Your task to perform on an android device: check data usage Image 0: 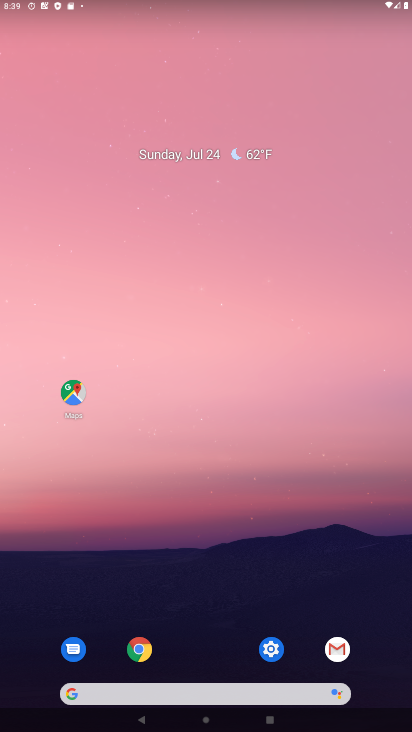
Step 0: click (265, 654)
Your task to perform on an android device: check data usage Image 1: 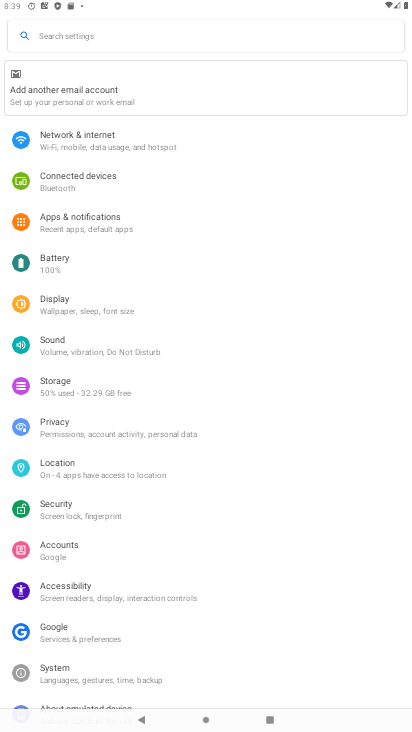
Step 1: click (102, 38)
Your task to perform on an android device: check data usage Image 2: 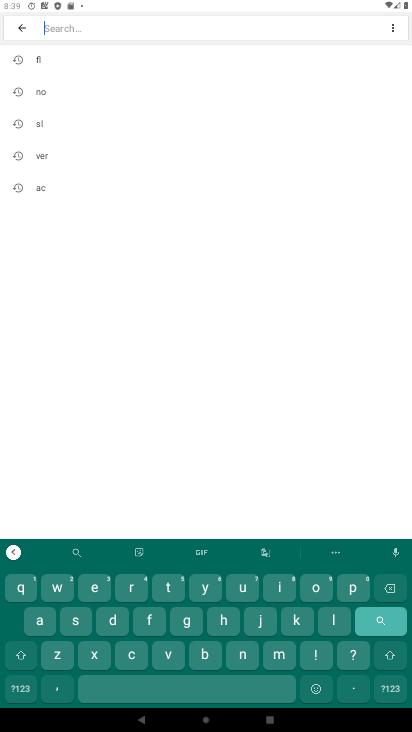
Step 2: click (111, 623)
Your task to perform on an android device: check data usage Image 3: 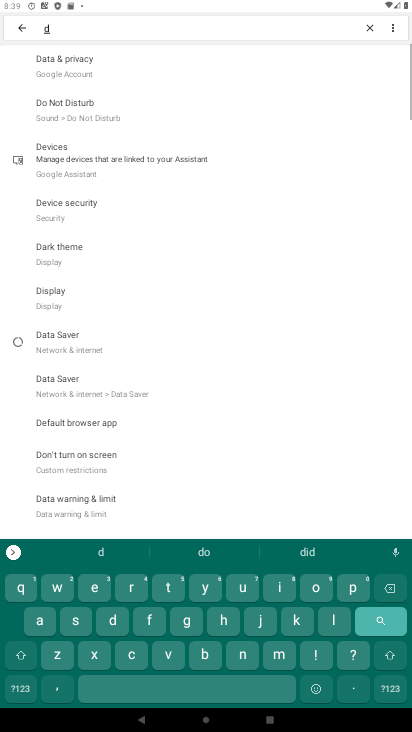
Step 3: click (39, 625)
Your task to perform on an android device: check data usage Image 4: 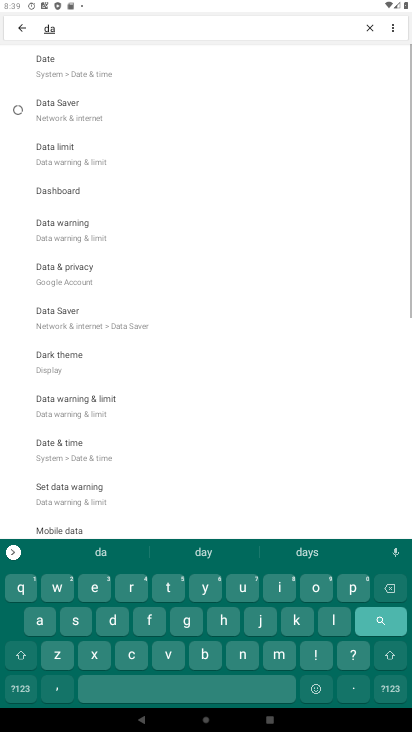
Step 4: click (163, 585)
Your task to perform on an android device: check data usage Image 5: 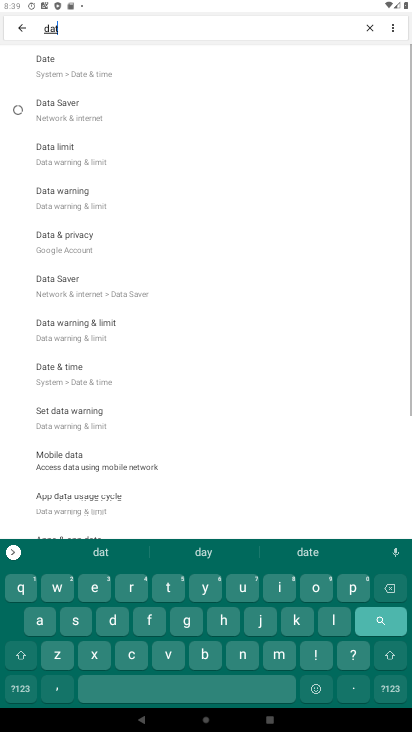
Step 5: click (41, 621)
Your task to perform on an android device: check data usage Image 6: 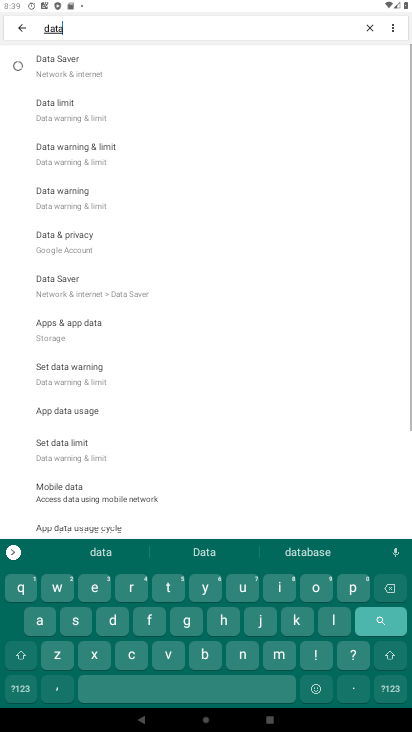
Step 6: click (204, 687)
Your task to perform on an android device: check data usage Image 7: 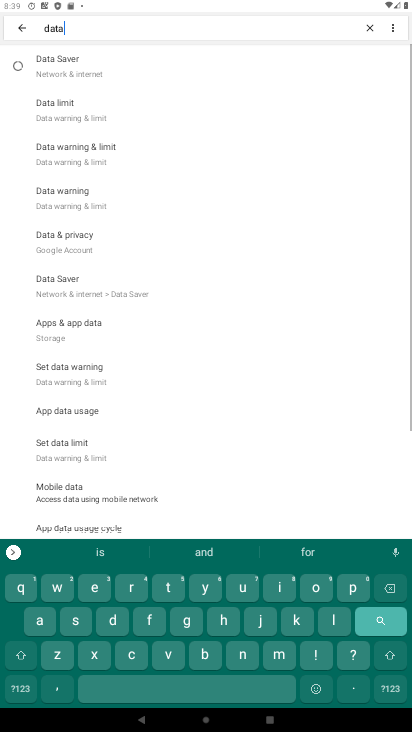
Step 7: click (235, 589)
Your task to perform on an android device: check data usage Image 8: 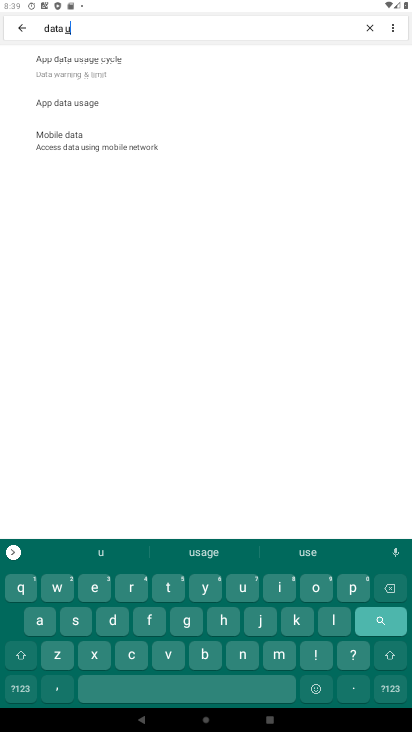
Step 8: click (91, 106)
Your task to perform on an android device: check data usage Image 9: 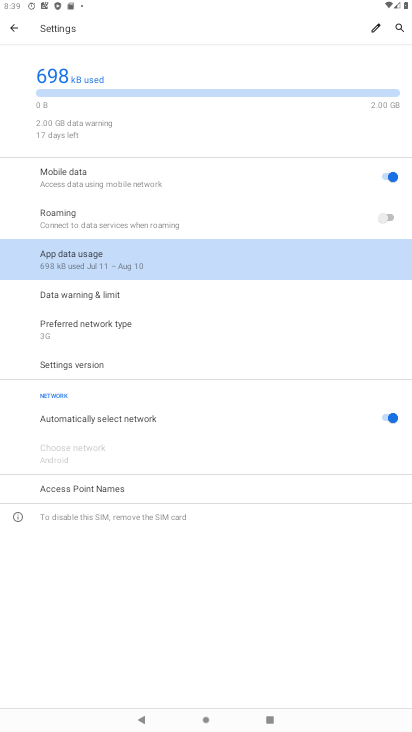
Step 9: click (138, 265)
Your task to perform on an android device: check data usage Image 10: 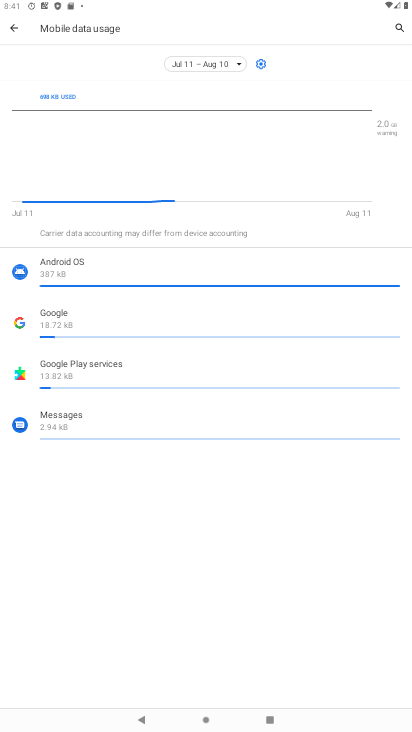
Step 10: task complete